Your task to perform on an android device: check out phone information Image 0: 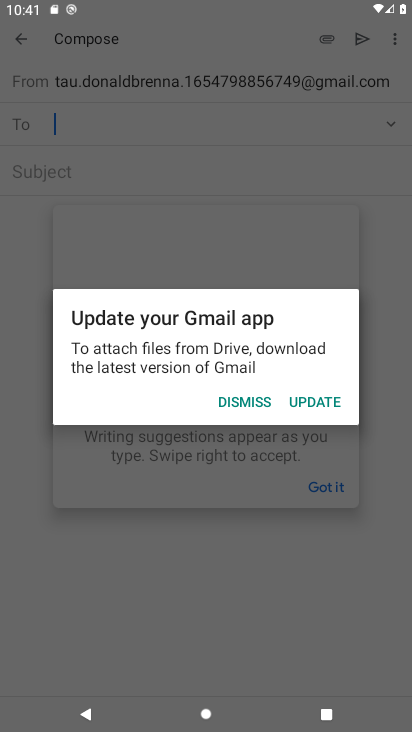
Step 0: press back button
Your task to perform on an android device: check out phone information Image 1: 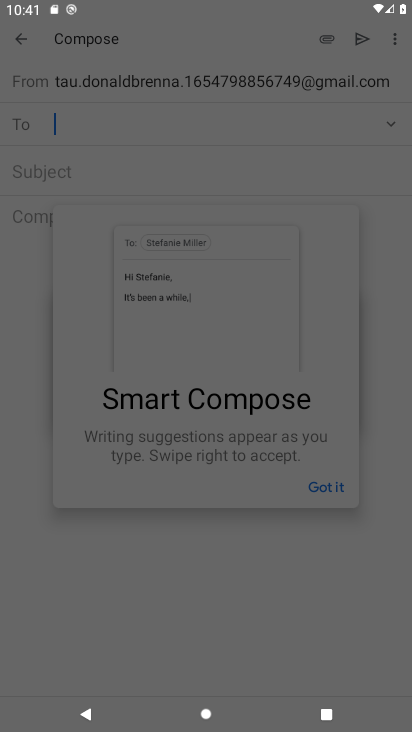
Step 1: click (232, 403)
Your task to perform on an android device: check out phone information Image 2: 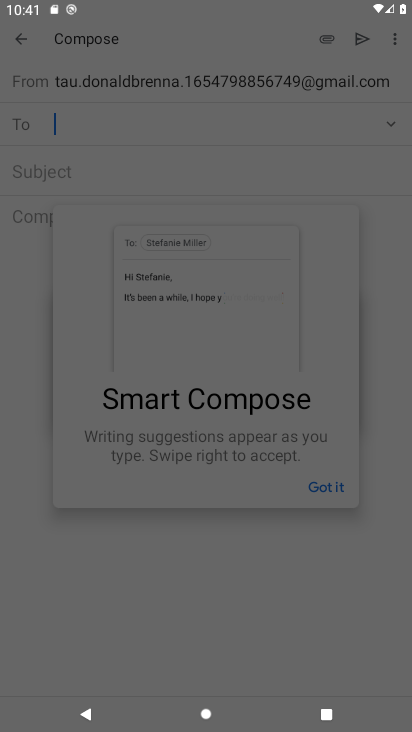
Step 2: click (338, 490)
Your task to perform on an android device: check out phone information Image 3: 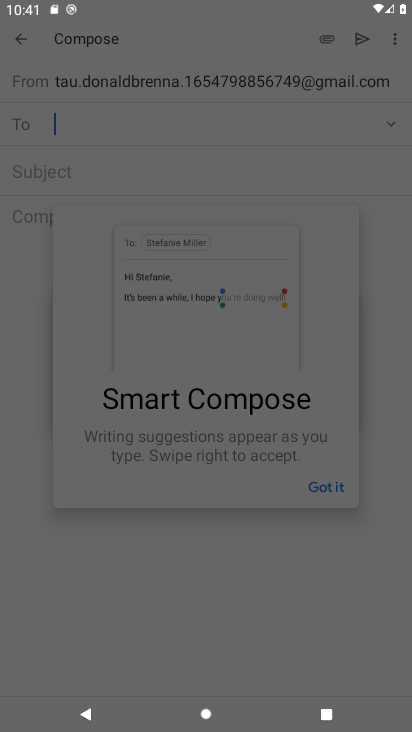
Step 3: press back button
Your task to perform on an android device: check out phone information Image 4: 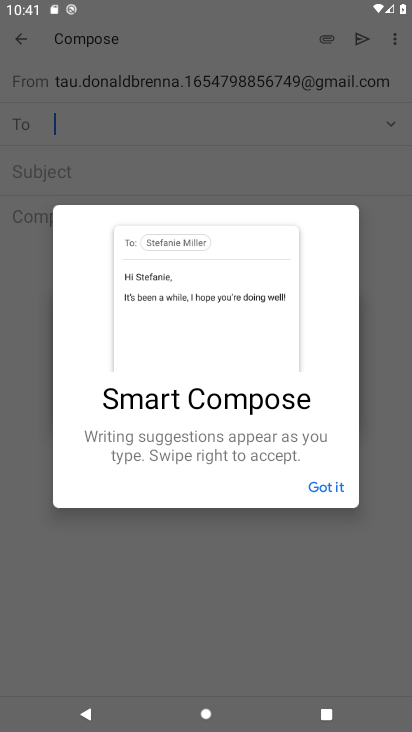
Step 4: click (327, 481)
Your task to perform on an android device: check out phone information Image 5: 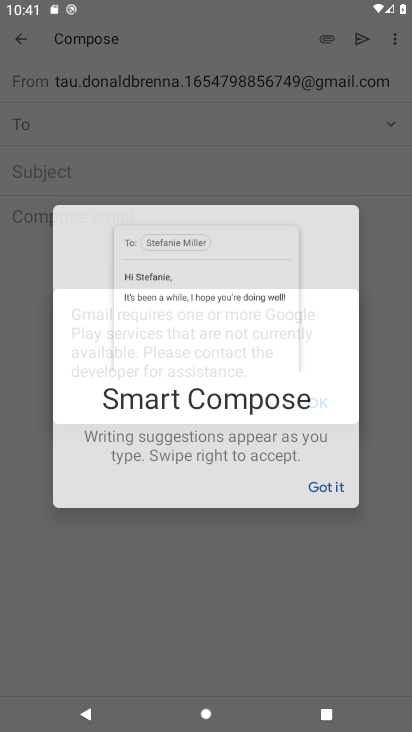
Step 5: click (328, 480)
Your task to perform on an android device: check out phone information Image 6: 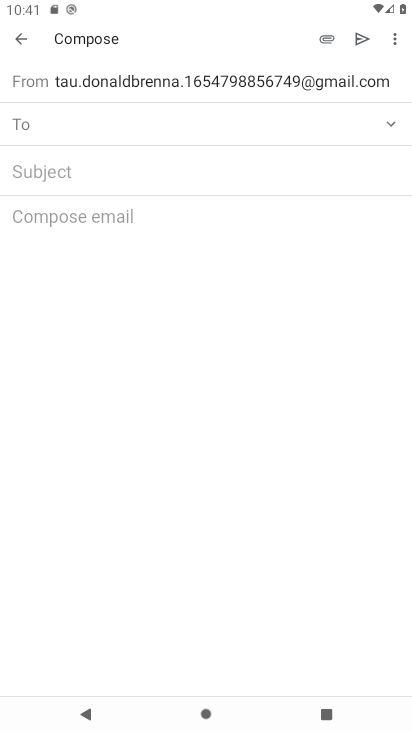
Step 6: click (18, 42)
Your task to perform on an android device: check out phone information Image 7: 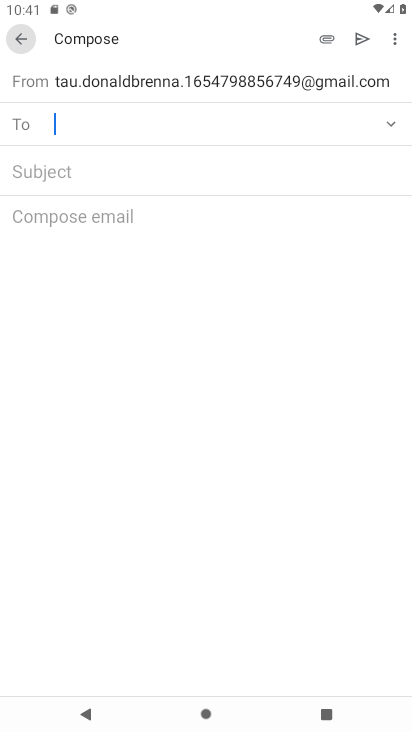
Step 7: click (20, 39)
Your task to perform on an android device: check out phone information Image 8: 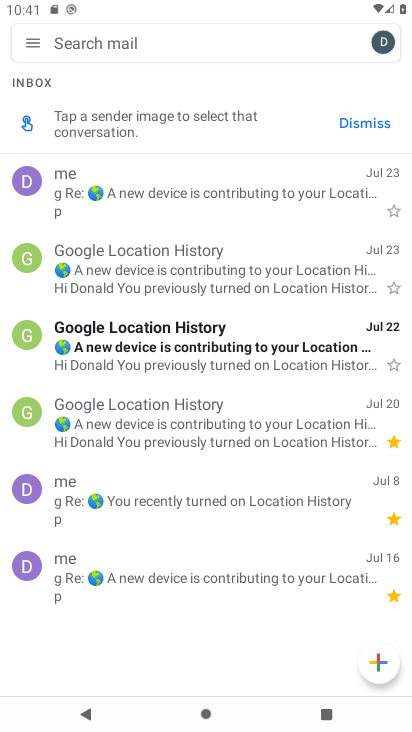
Step 8: press back button
Your task to perform on an android device: check out phone information Image 9: 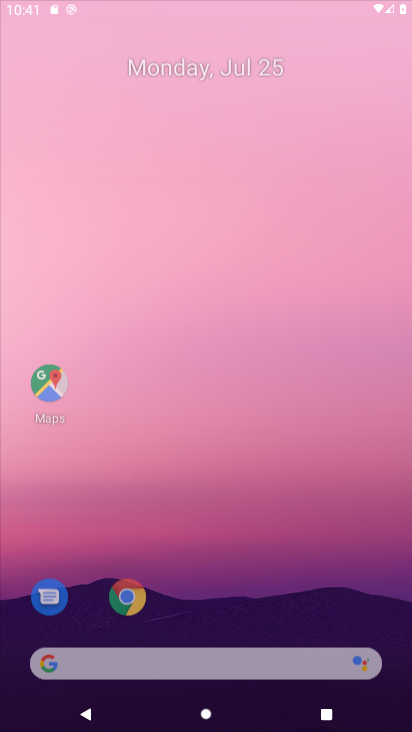
Step 9: press back button
Your task to perform on an android device: check out phone information Image 10: 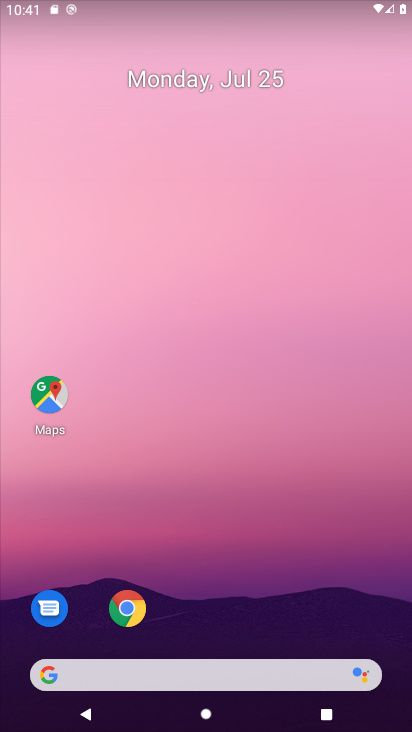
Step 10: press back button
Your task to perform on an android device: check out phone information Image 11: 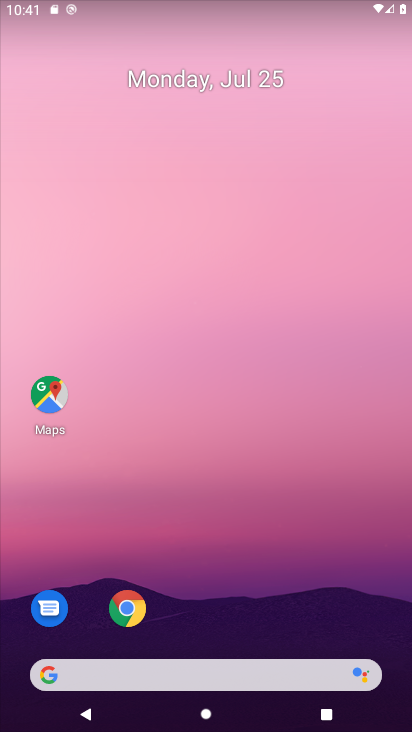
Step 11: click (241, 268)
Your task to perform on an android device: check out phone information Image 12: 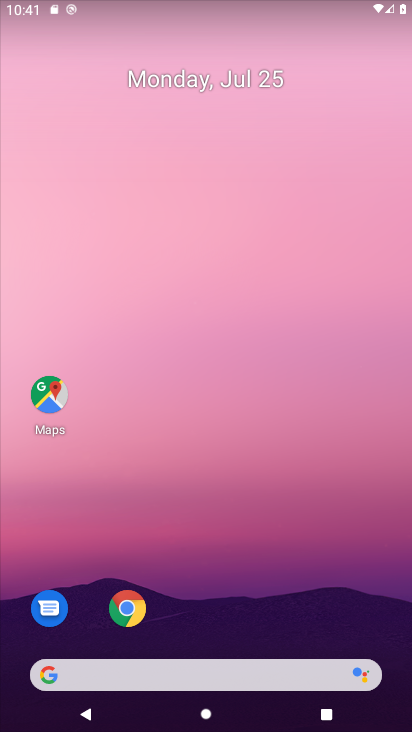
Step 12: drag from (239, 645) to (199, 193)
Your task to perform on an android device: check out phone information Image 13: 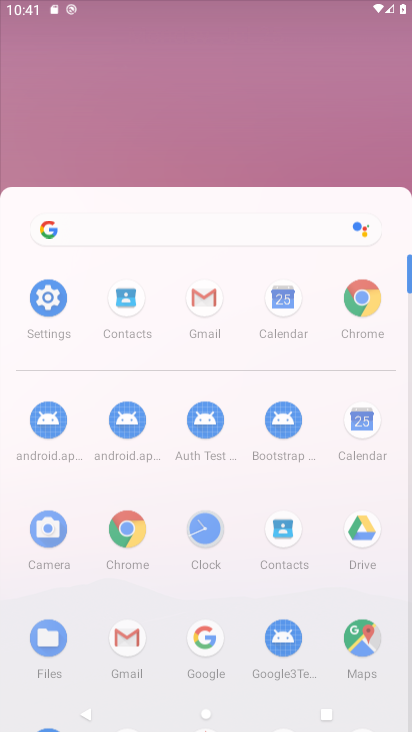
Step 13: drag from (248, 648) to (168, 338)
Your task to perform on an android device: check out phone information Image 14: 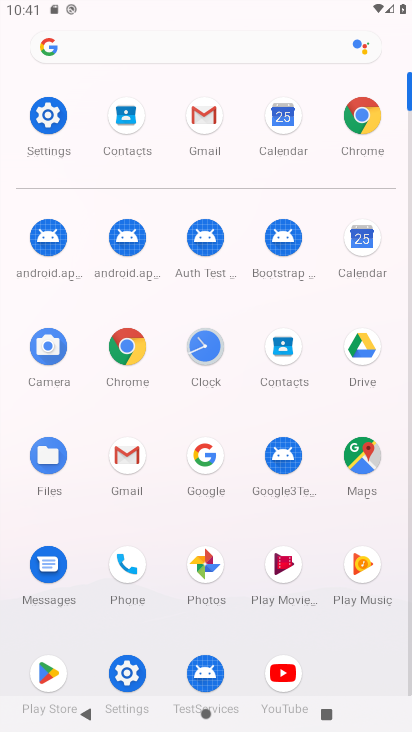
Step 14: drag from (212, 551) to (166, 187)
Your task to perform on an android device: check out phone information Image 15: 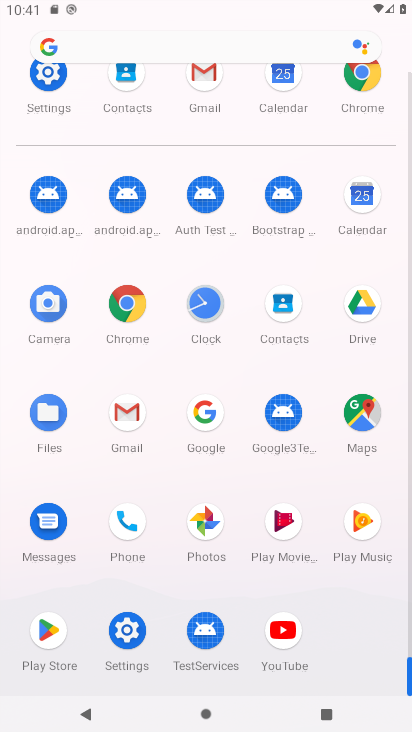
Step 15: click (113, 638)
Your task to perform on an android device: check out phone information Image 16: 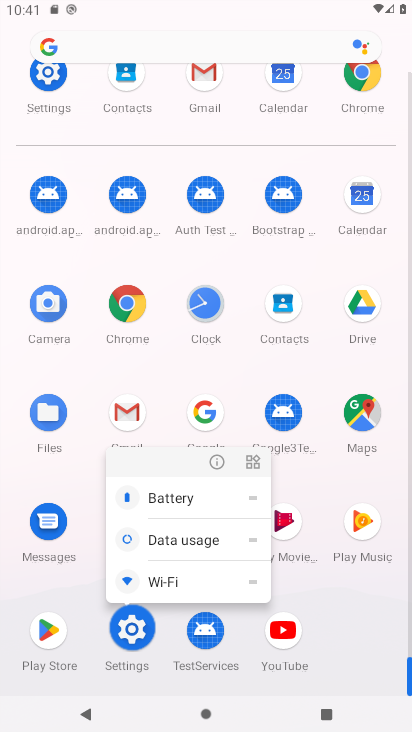
Step 16: click (119, 634)
Your task to perform on an android device: check out phone information Image 17: 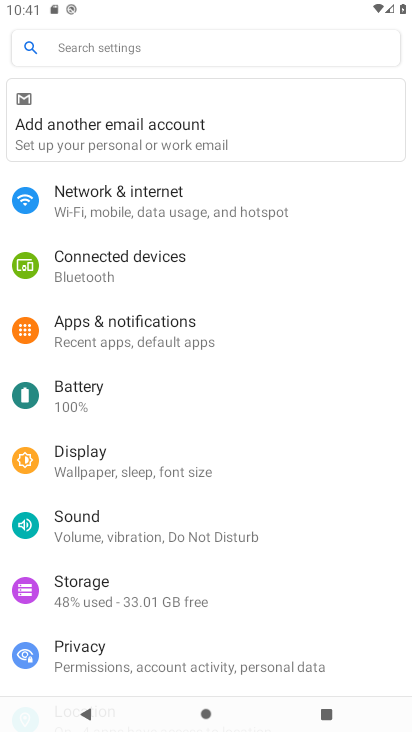
Step 17: drag from (236, 533) to (93, 191)
Your task to perform on an android device: check out phone information Image 18: 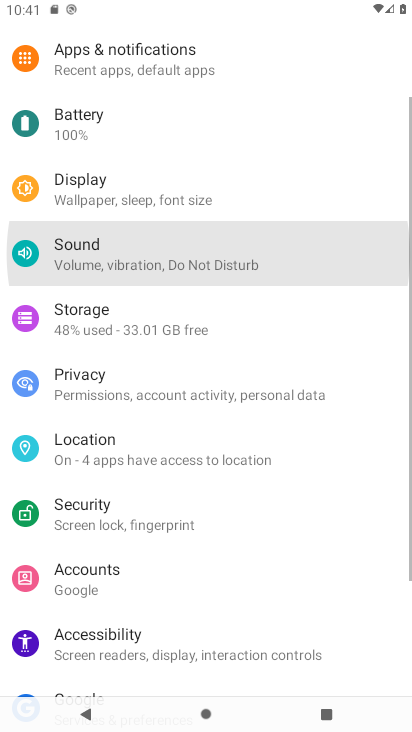
Step 18: drag from (212, 499) to (173, 245)
Your task to perform on an android device: check out phone information Image 19: 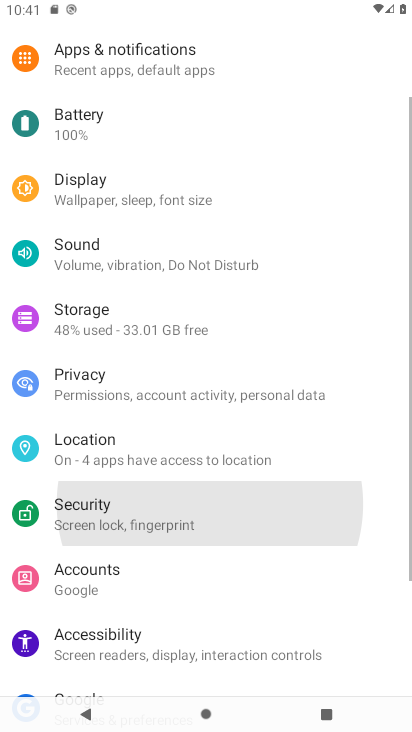
Step 19: drag from (191, 529) to (166, 281)
Your task to perform on an android device: check out phone information Image 20: 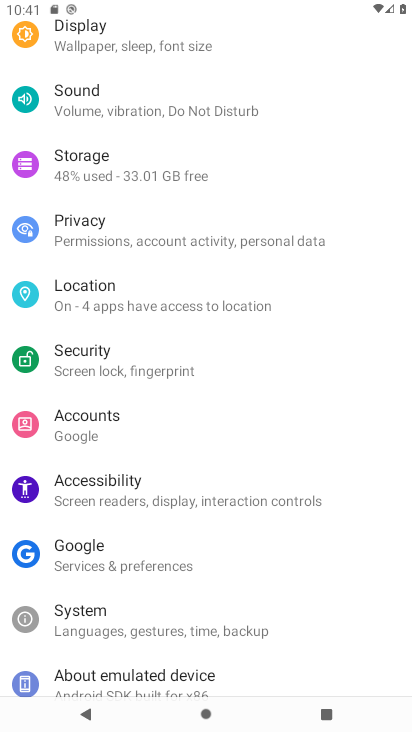
Step 20: drag from (188, 585) to (128, 263)
Your task to perform on an android device: check out phone information Image 21: 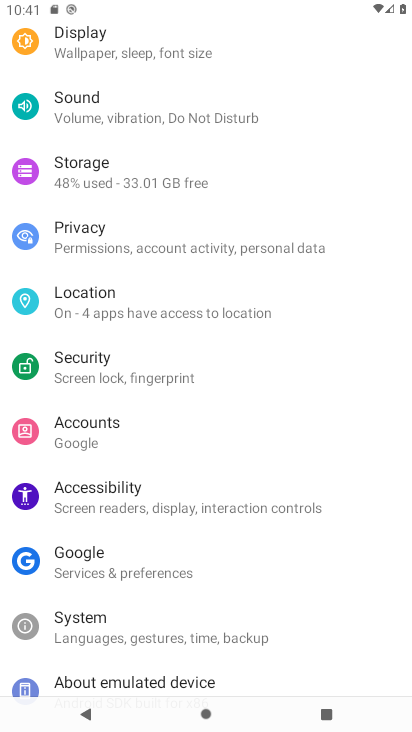
Step 21: drag from (184, 583) to (169, 243)
Your task to perform on an android device: check out phone information Image 22: 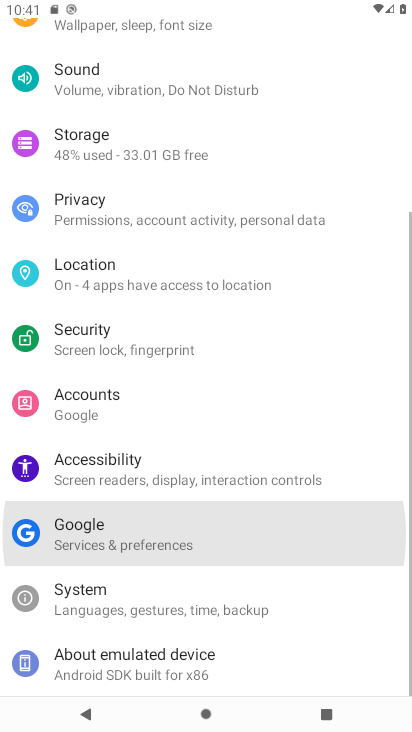
Step 22: drag from (215, 616) to (163, 206)
Your task to perform on an android device: check out phone information Image 23: 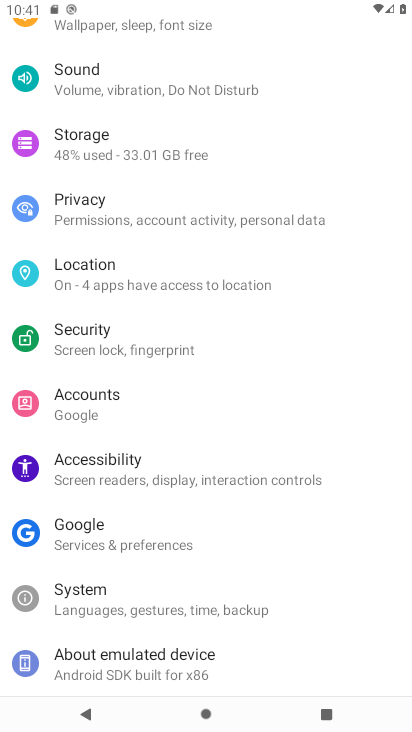
Step 23: click (127, 674)
Your task to perform on an android device: check out phone information Image 24: 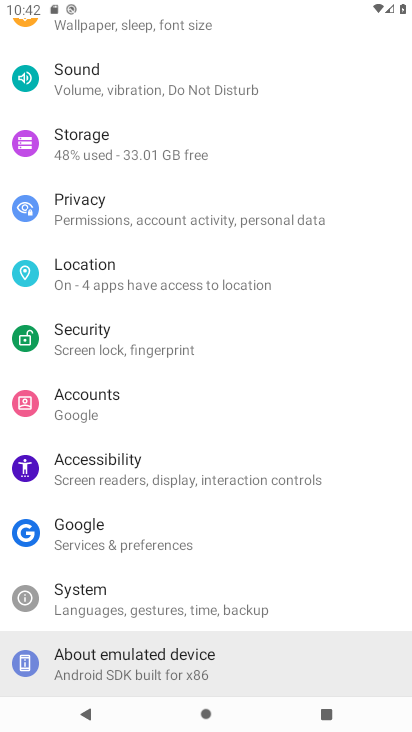
Step 24: click (126, 667)
Your task to perform on an android device: check out phone information Image 25: 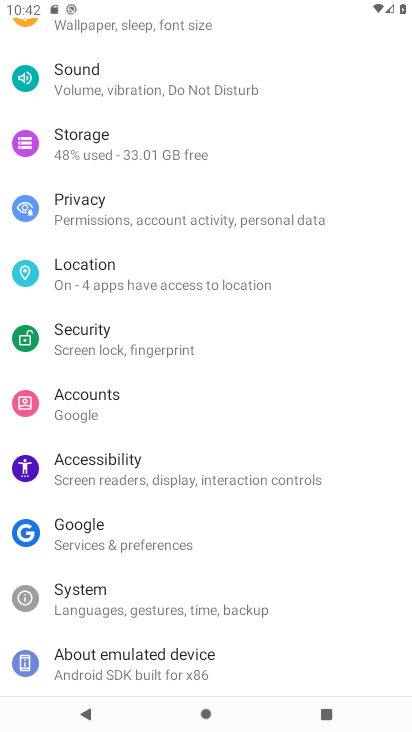
Step 25: click (133, 660)
Your task to perform on an android device: check out phone information Image 26: 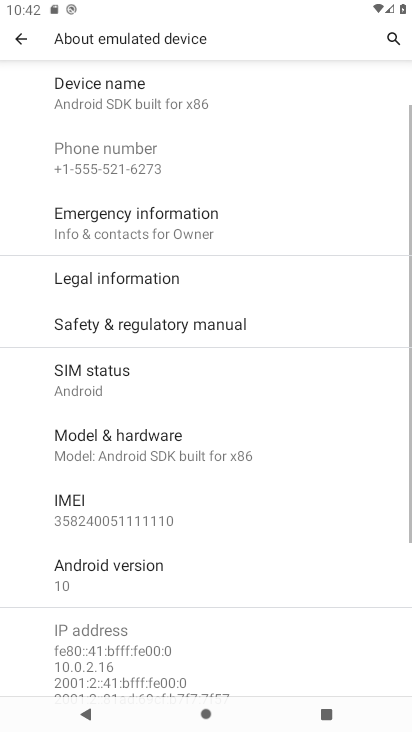
Step 26: click (267, 233)
Your task to perform on an android device: check out phone information Image 27: 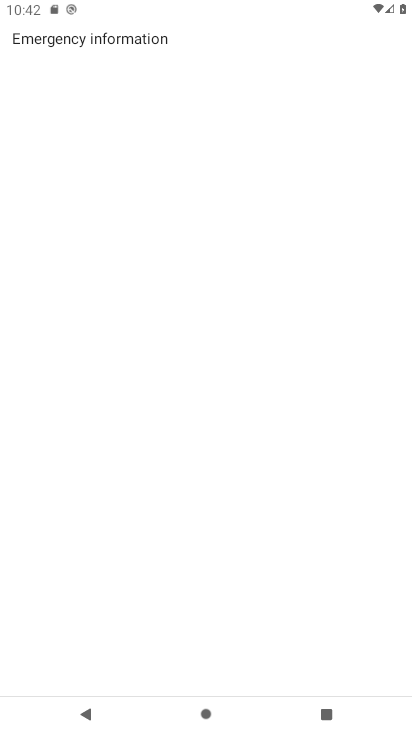
Step 27: task complete